Your task to perform on an android device: Check the weather Image 0: 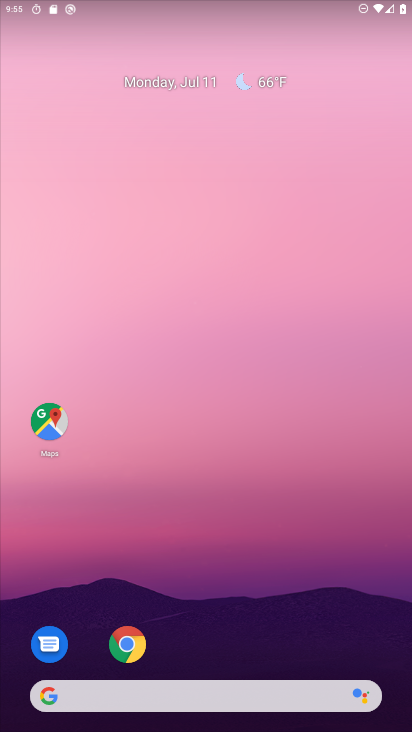
Step 0: drag from (270, 471) to (222, 171)
Your task to perform on an android device: Check the weather Image 1: 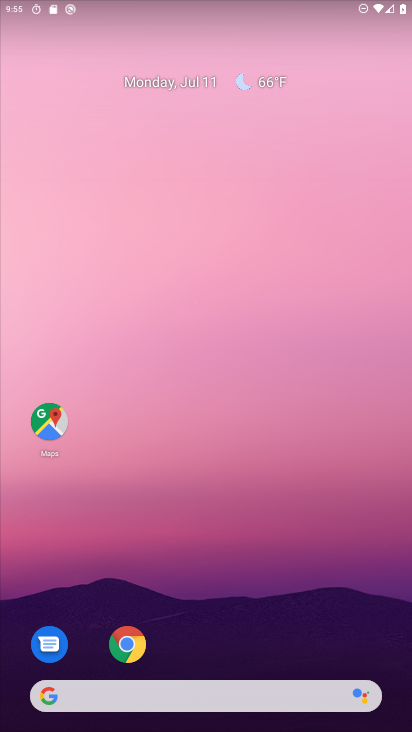
Step 1: click (276, 81)
Your task to perform on an android device: Check the weather Image 2: 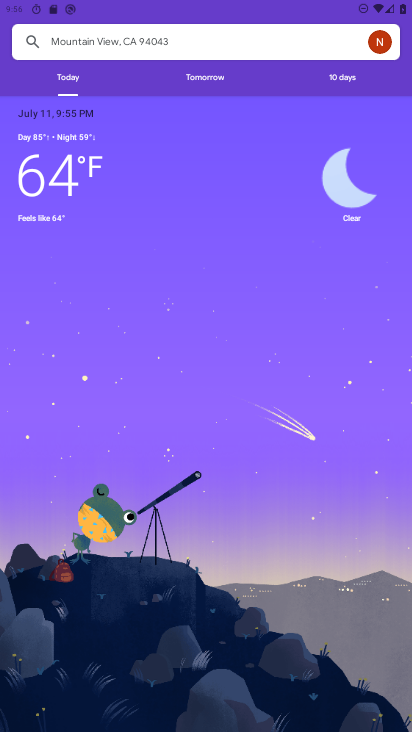
Step 2: task complete